Your task to perform on an android device: toggle notifications settings in the gmail app Image 0: 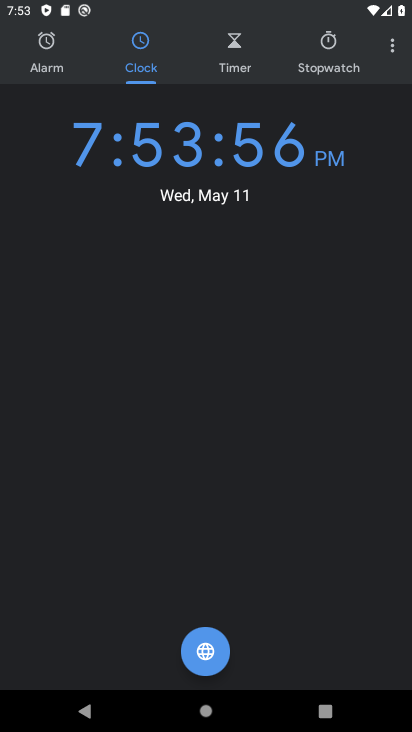
Step 0: press home button
Your task to perform on an android device: toggle notifications settings in the gmail app Image 1: 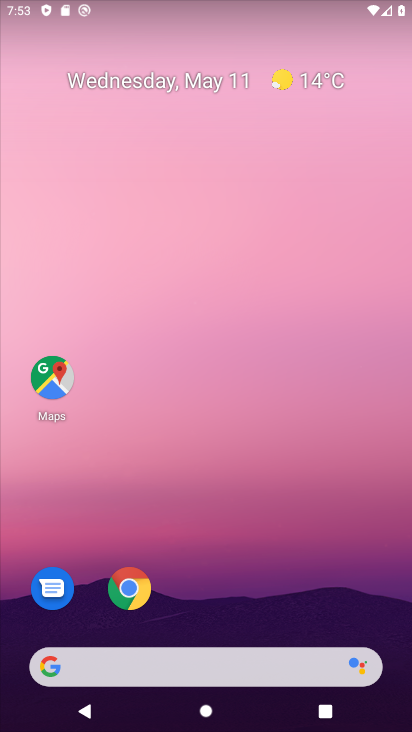
Step 1: drag from (255, 714) to (322, 10)
Your task to perform on an android device: toggle notifications settings in the gmail app Image 2: 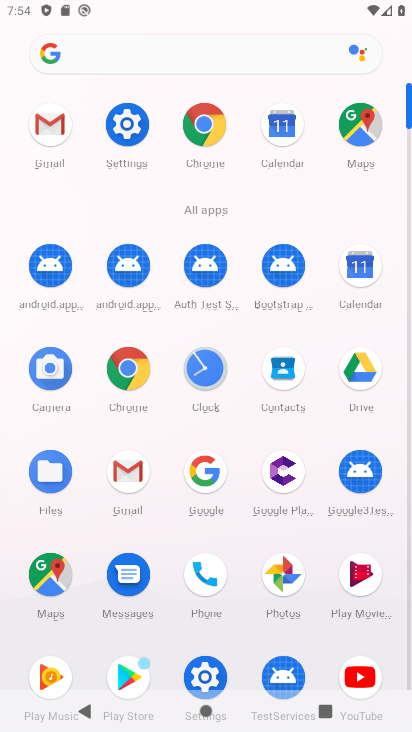
Step 2: click (54, 134)
Your task to perform on an android device: toggle notifications settings in the gmail app Image 3: 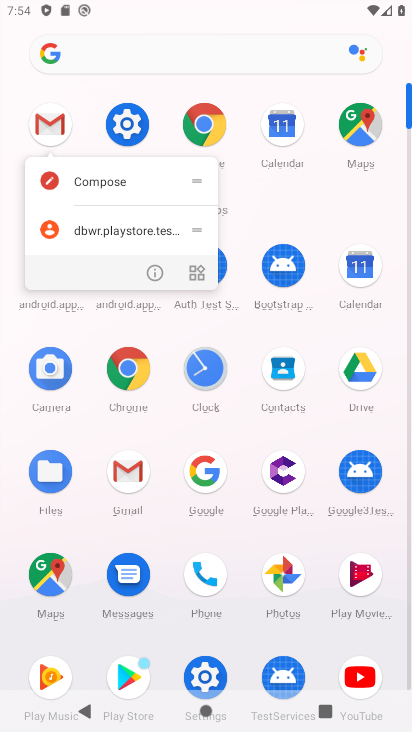
Step 3: click (150, 275)
Your task to perform on an android device: toggle notifications settings in the gmail app Image 4: 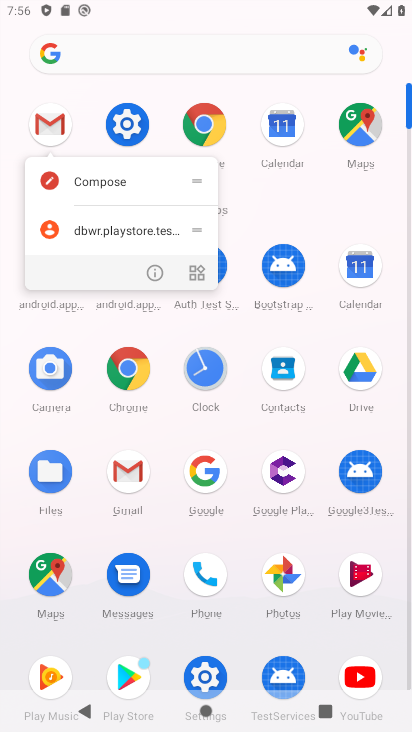
Step 4: click (161, 279)
Your task to perform on an android device: toggle notifications settings in the gmail app Image 5: 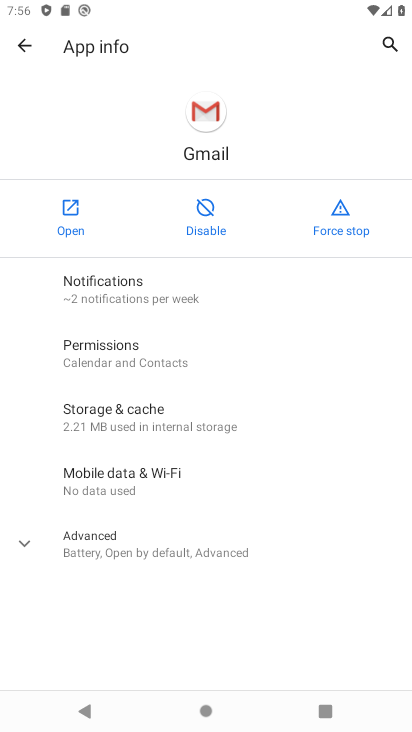
Step 5: click (218, 286)
Your task to perform on an android device: toggle notifications settings in the gmail app Image 6: 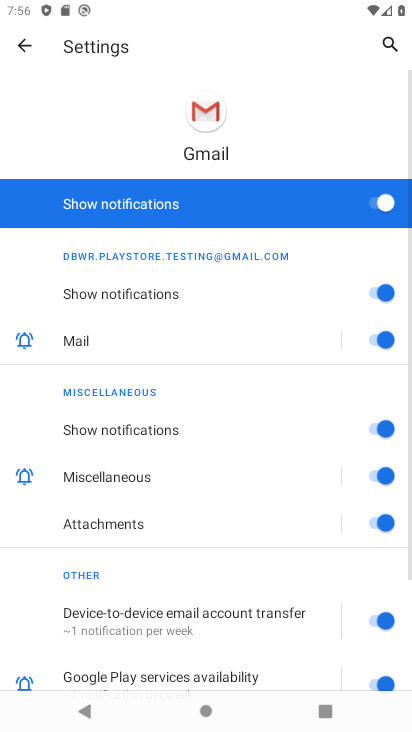
Step 6: click (384, 207)
Your task to perform on an android device: toggle notifications settings in the gmail app Image 7: 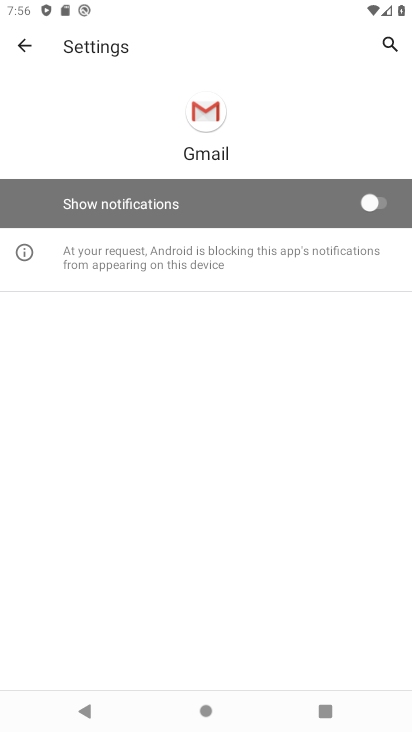
Step 7: task complete